Your task to perform on an android device: Go to Maps Image 0: 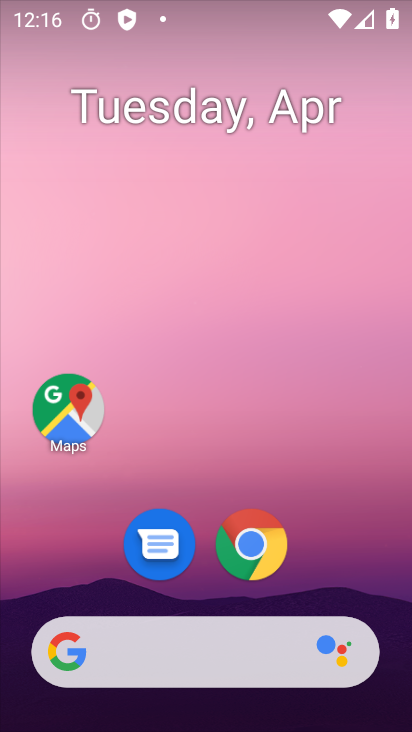
Step 0: click (62, 411)
Your task to perform on an android device: Go to Maps Image 1: 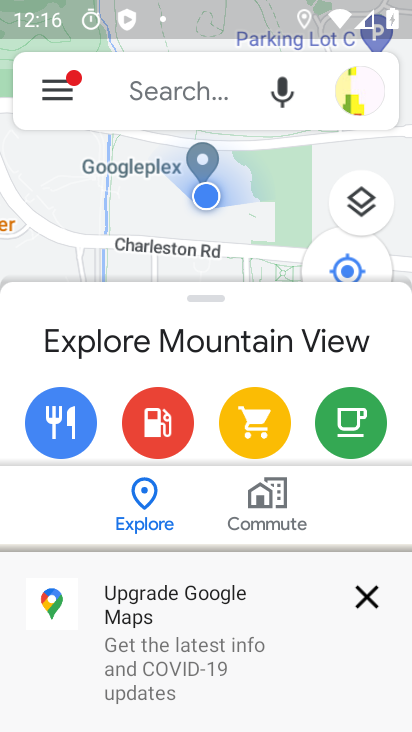
Step 1: task complete